Your task to perform on an android device: see tabs open on other devices in the chrome app Image 0: 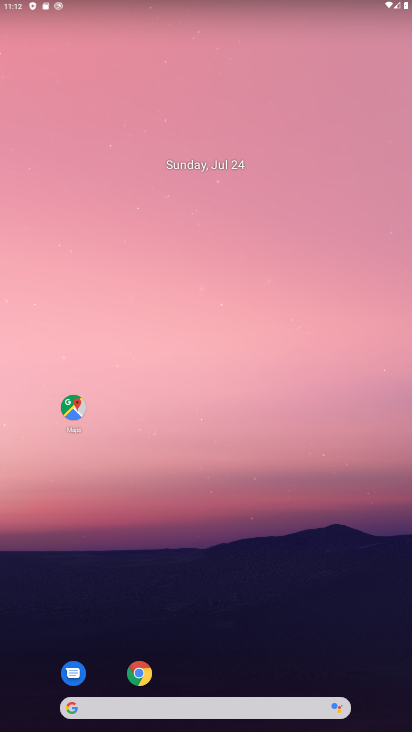
Step 0: click (139, 672)
Your task to perform on an android device: see tabs open on other devices in the chrome app Image 1: 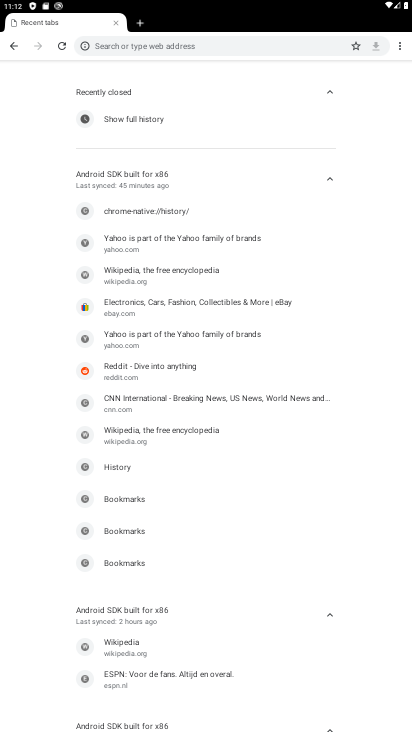
Step 1: click (401, 46)
Your task to perform on an android device: see tabs open on other devices in the chrome app Image 2: 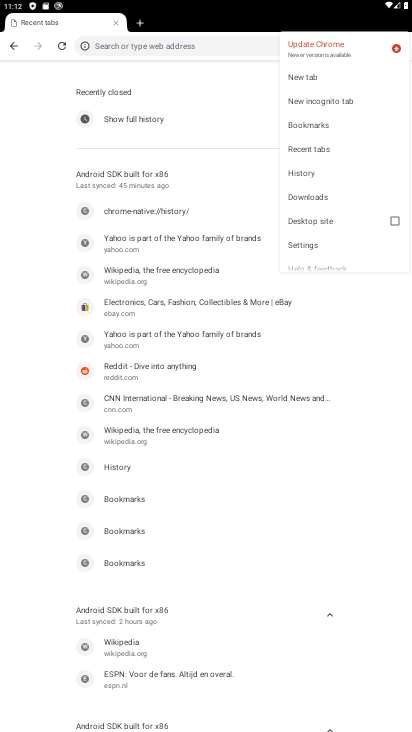
Step 2: click (325, 148)
Your task to perform on an android device: see tabs open on other devices in the chrome app Image 3: 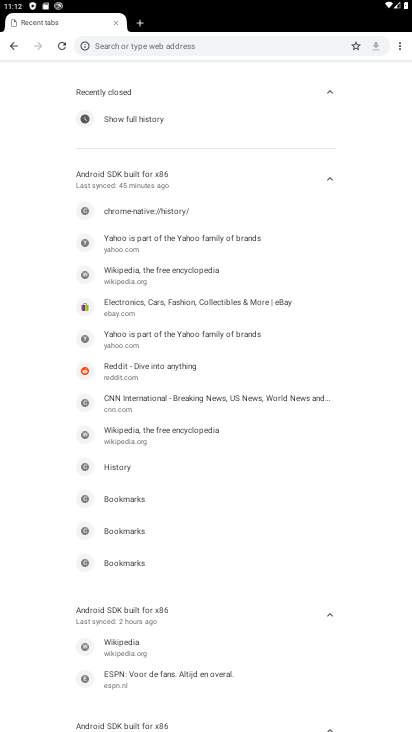
Step 3: task complete